Your task to perform on an android device: Open eBay Image 0: 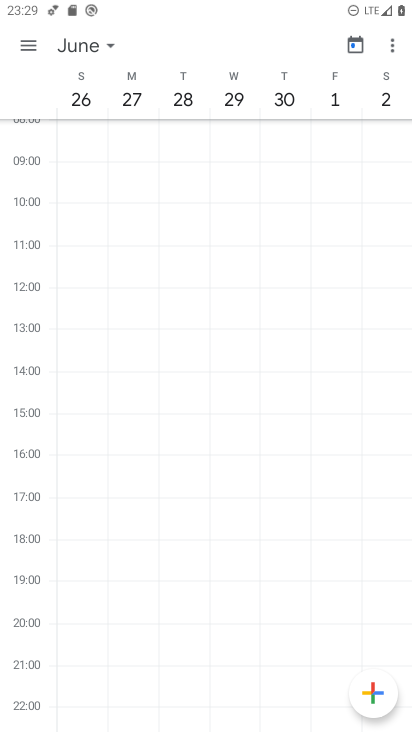
Step 0: press home button
Your task to perform on an android device: Open eBay Image 1: 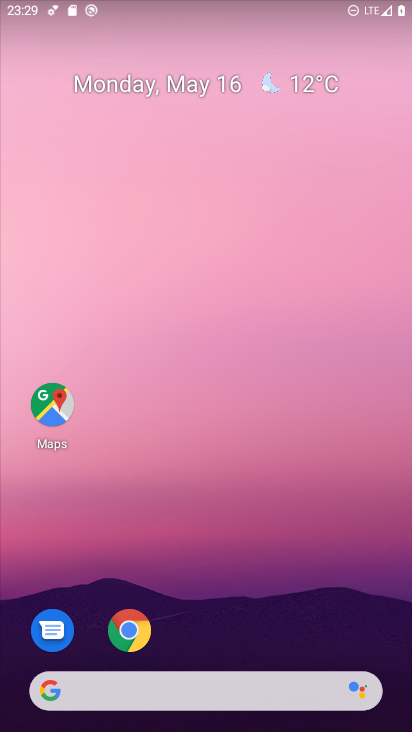
Step 1: click (261, 692)
Your task to perform on an android device: Open eBay Image 2: 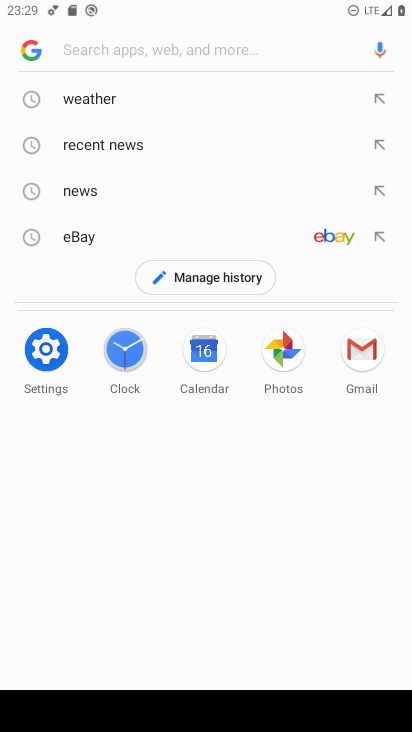
Step 2: click (83, 232)
Your task to perform on an android device: Open eBay Image 3: 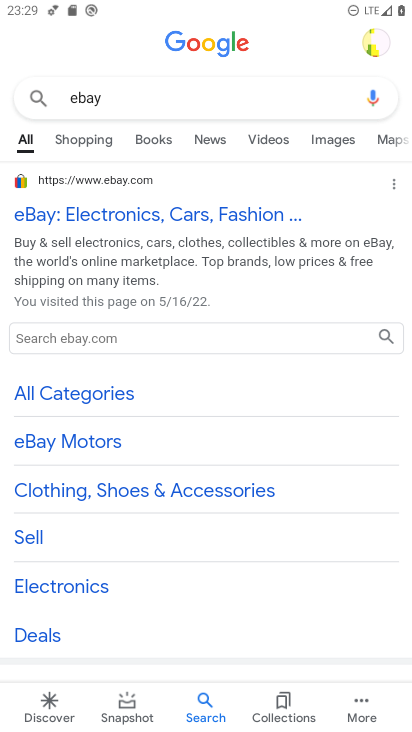
Step 3: click (41, 201)
Your task to perform on an android device: Open eBay Image 4: 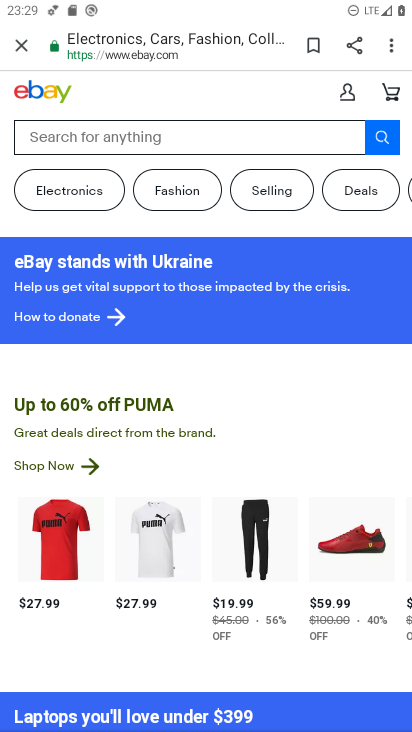
Step 4: task complete